Your task to perform on an android device: What's on my calendar today? Image 0: 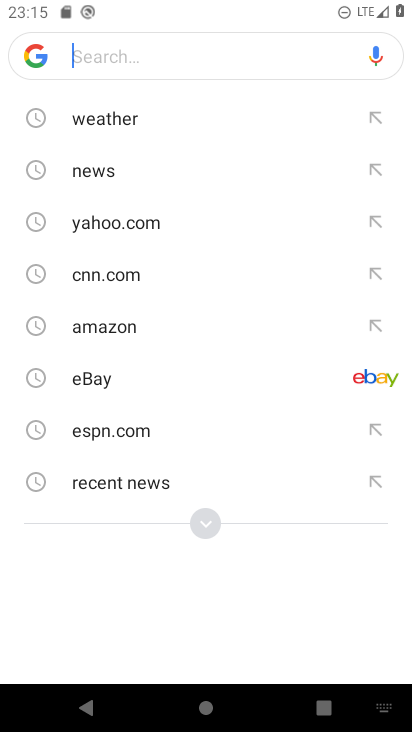
Step 0: press home button
Your task to perform on an android device: What's on my calendar today? Image 1: 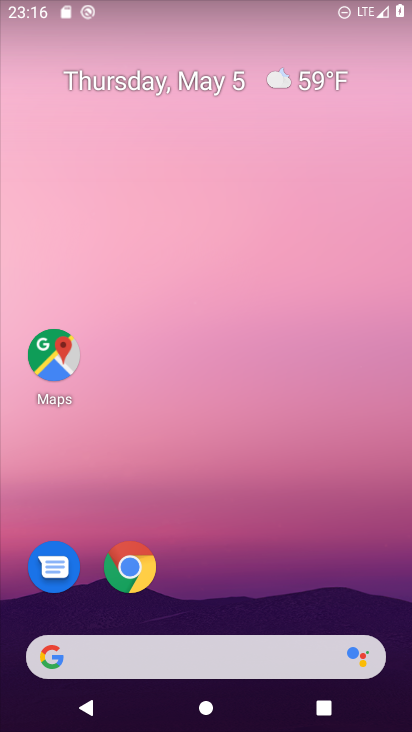
Step 1: drag from (213, 568) to (252, 101)
Your task to perform on an android device: What's on my calendar today? Image 2: 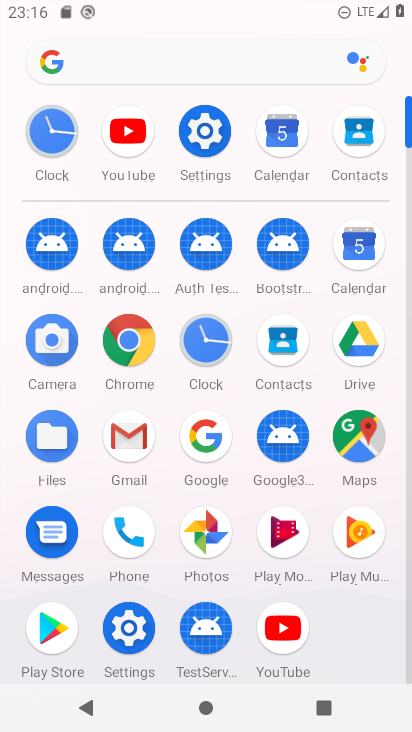
Step 2: click (283, 131)
Your task to perform on an android device: What's on my calendar today? Image 3: 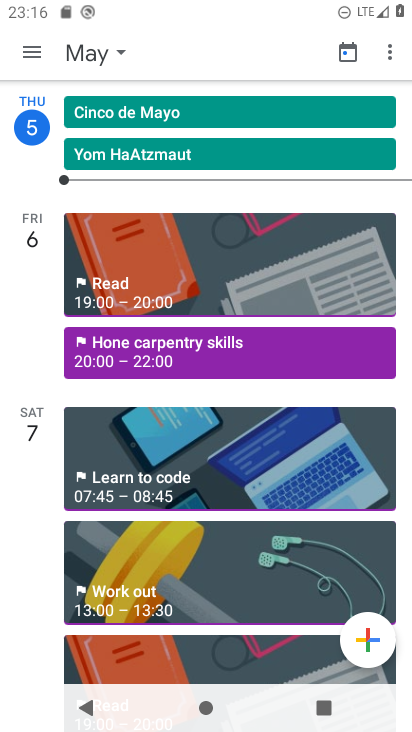
Step 3: click (99, 54)
Your task to perform on an android device: What's on my calendar today? Image 4: 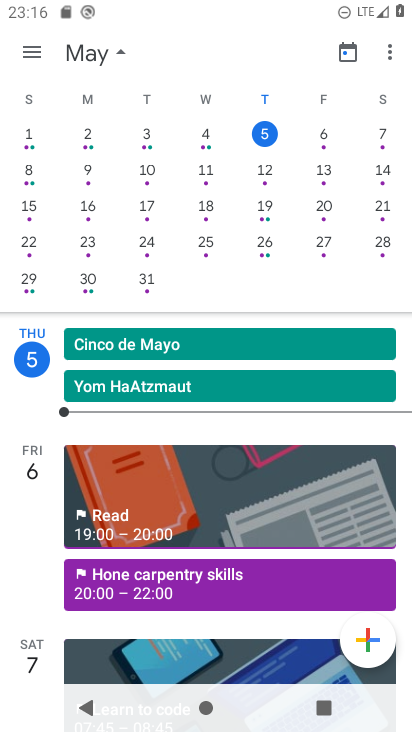
Step 4: click (262, 128)
Your task to perform on an android device: What's on my calendar today? Image 5: 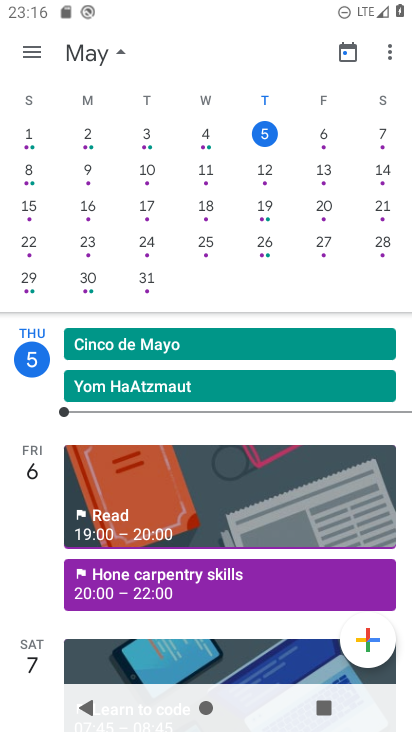
Step 5: drag from (10, 192) to (60, 205)
Your task to perform on an android device: What's on my calendar today? Image 6: 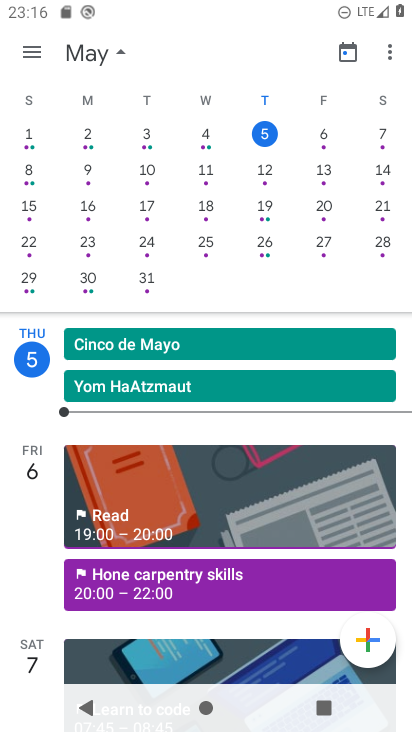
Step 6: drag from (189, 560) to (225, 246)
Your task to perform on an android device: What's on my calendar today? Image 7: 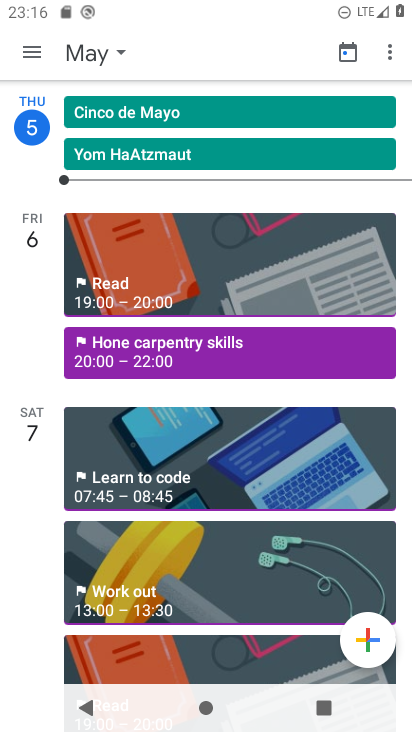
Step 7: click (148, 270)
Your task to perform on an android device: What's on my calendar today? Image 8: 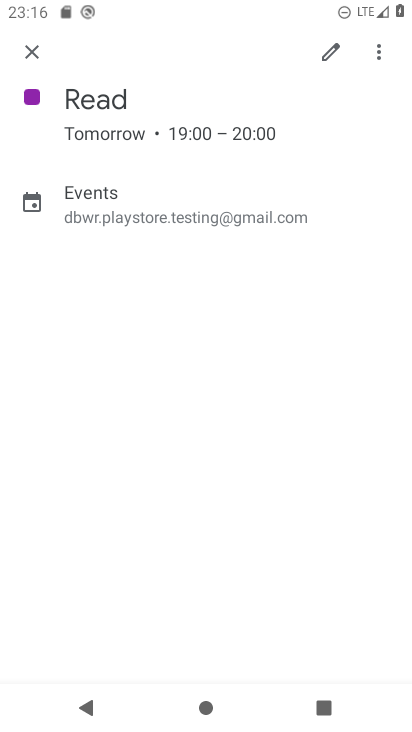
Step 8: task complete